Your task to perform on an android device: Is it going to rain tomorrow? Image 0: 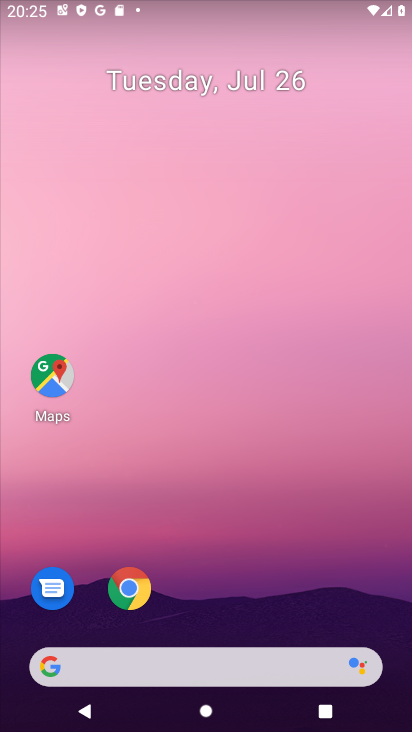
Step 0: press home button
Your task to perform on an android device: Is it going to rain tomorrow? Image 1: 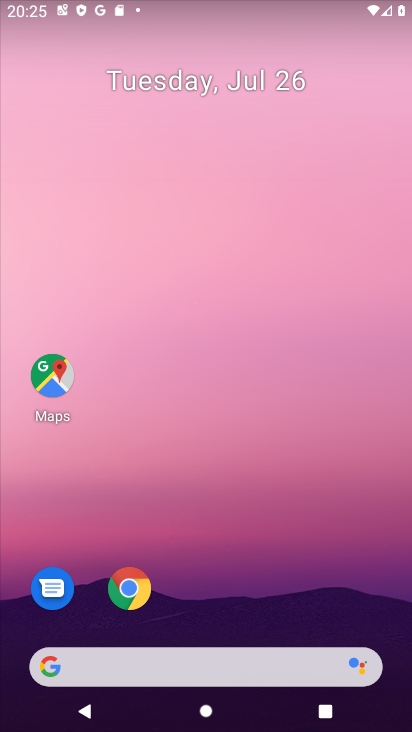
Step 1: click (42, 667)
Your task to perform on an android device: Is it going to rain tomorrow? Image 2: 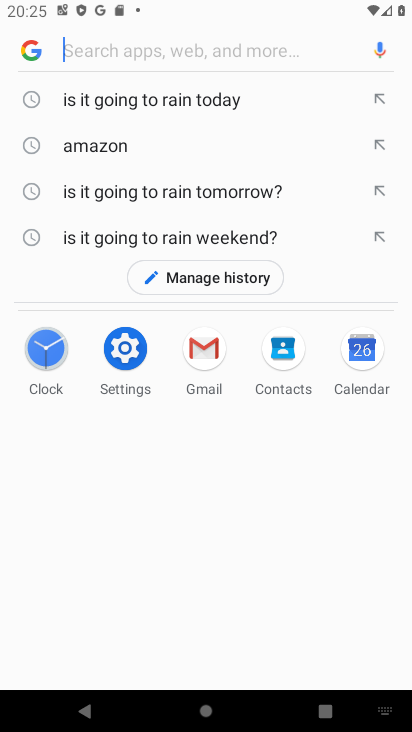
Step 2: type "Is it going to rain tomorrow?"
Your task to perform on an android device: Is it going to rain tomorrow? Image 3: 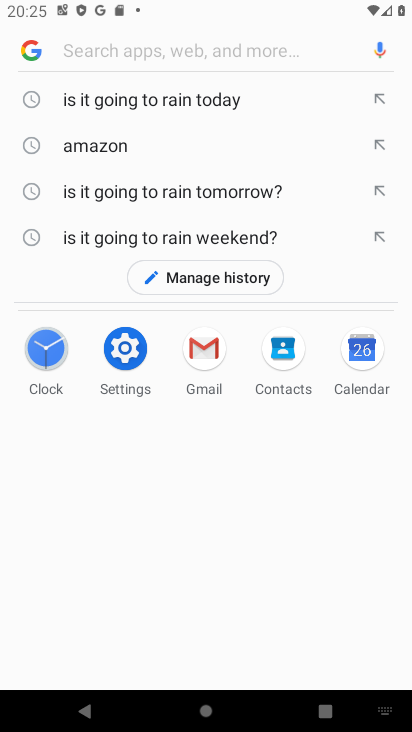
Step 3: click (192, 41)
Your task to perform on an android device: Is it going to rain tomorrow? Image 4: 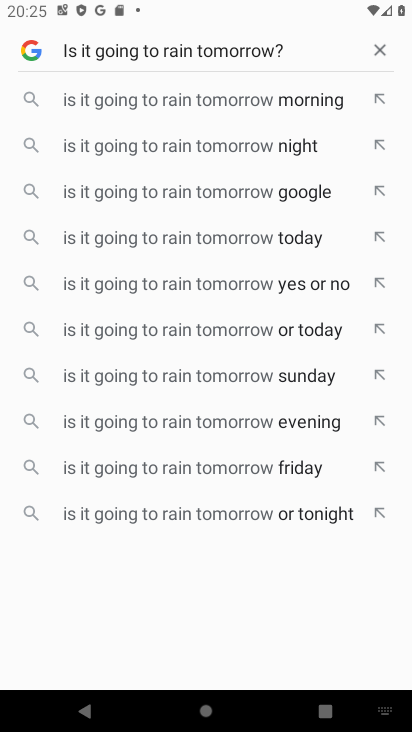
Step 4: press enter
Your task to perform on an android device: Is it going to rain tomorrow? Image 5: 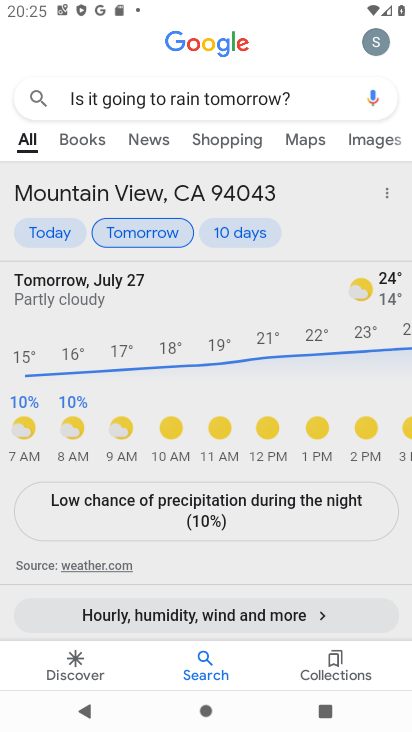
Step 5: task complete